Your task to perform on an android device: turn on translation in the chrome app Image 0: 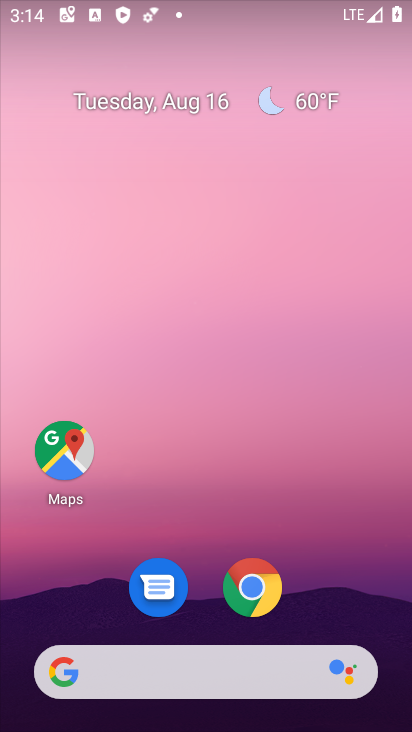
Step 0: click (265, 600)
Your task to perform on an android device: turn on translation in the chrome app Image 1: 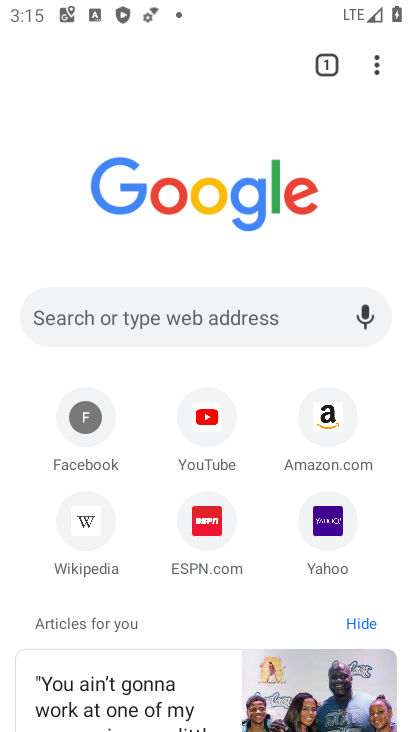
Step 1: drag from (376, 61) to (189, 549)
Your task to perform on an android device: turn on translation in the chrome app Image 2: 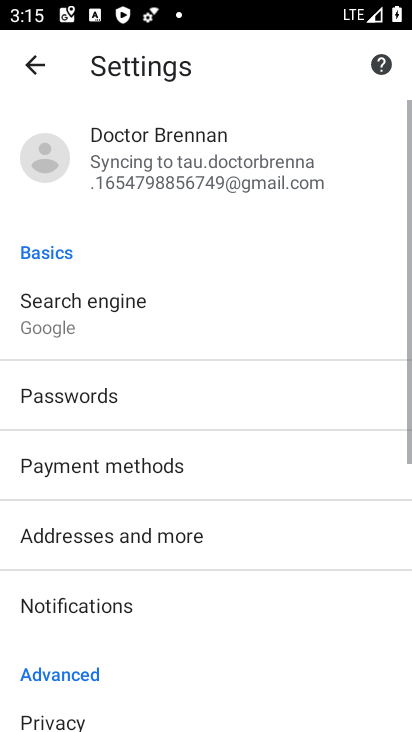
Step 2: drag from (188, 696) to (287, 112)
Your task to perform on an android device: turn on translation in the chrome app Image 3: 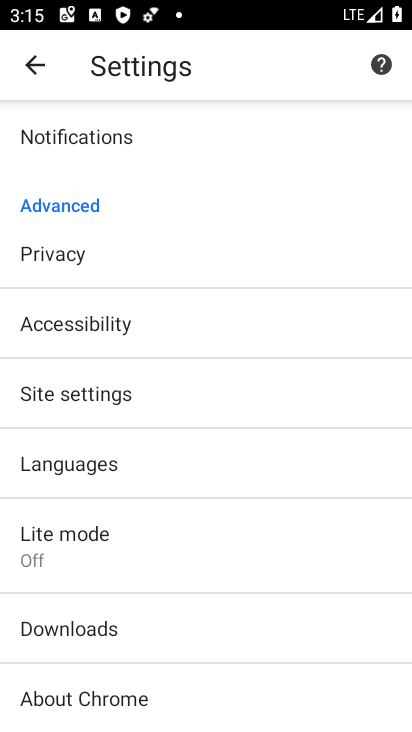
Step 3: click (87, 457)
Your task to perform on an android device: turn on translation in the chrome app Image 4: 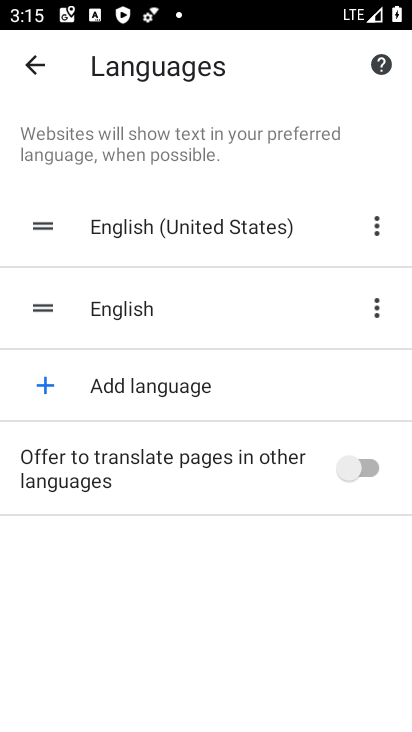
Step 4: click (354, 464)
Your task to perform on an android device: turn on translation in the chrome app Image 5: 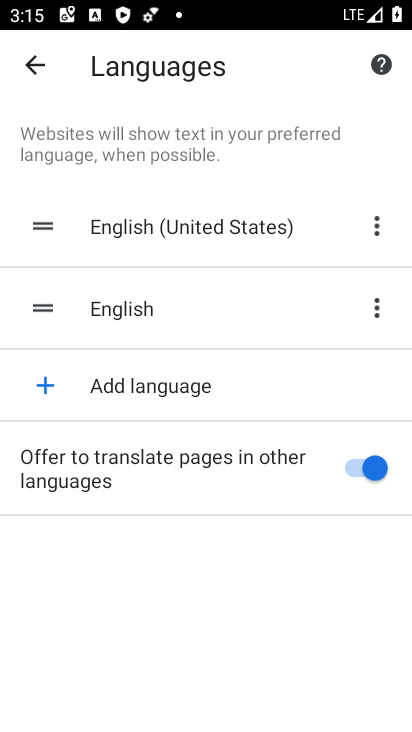
Step 5: task complete